Your task to perform on an android device: Go to internet settings Image 0: 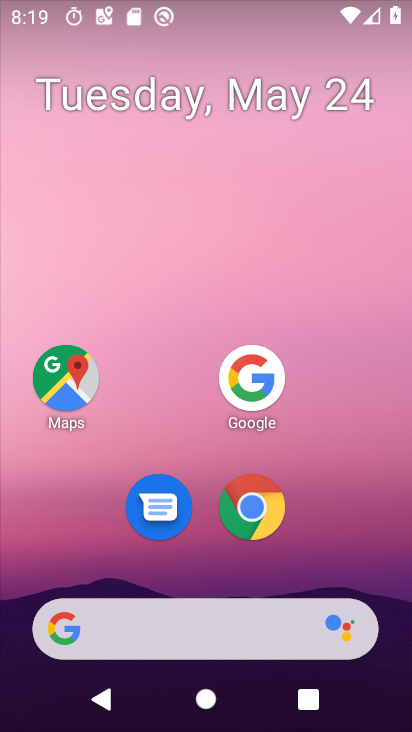
Step 0: drag from (146, 646) to (329, 110)
Your task to perform on an android device: Go to internet settings Image 1: 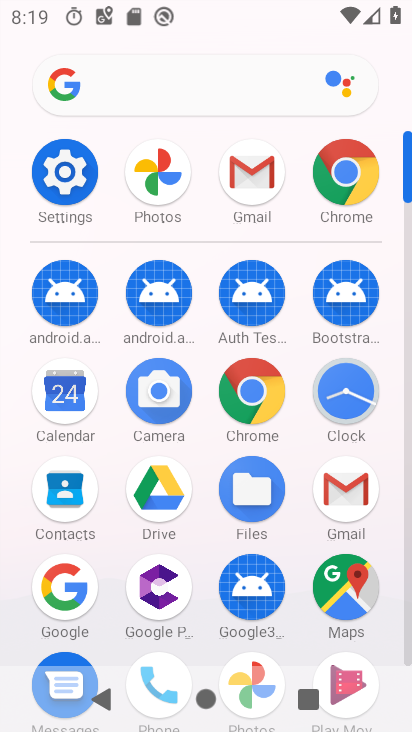
Step 1: click (72, 174)
Your task to perform on an android device: Go to internet settings Image 2: 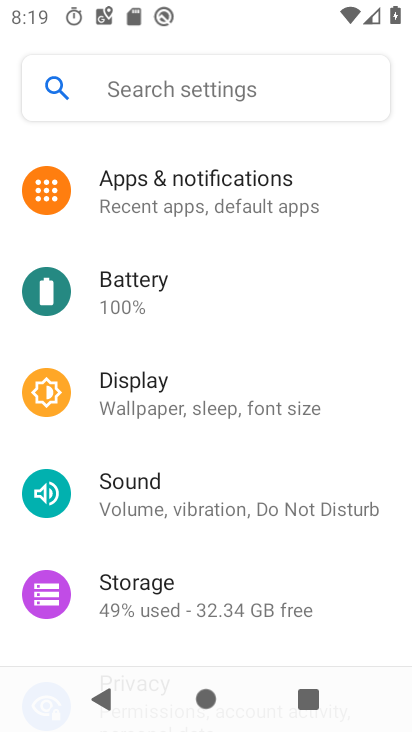
Step 2: drag from (343, 160) to (187, 541)
Your task to perform on an android device: Go to internet settings Image 3: 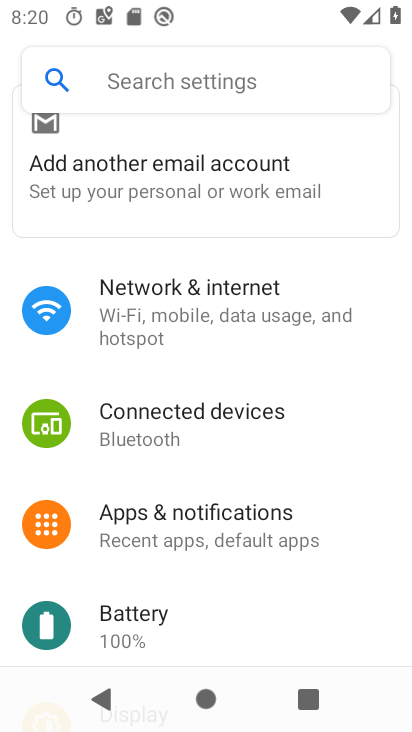
Step 3: click (206, 298)
Your task to perform on an android device: Go to internet settings Image 4: 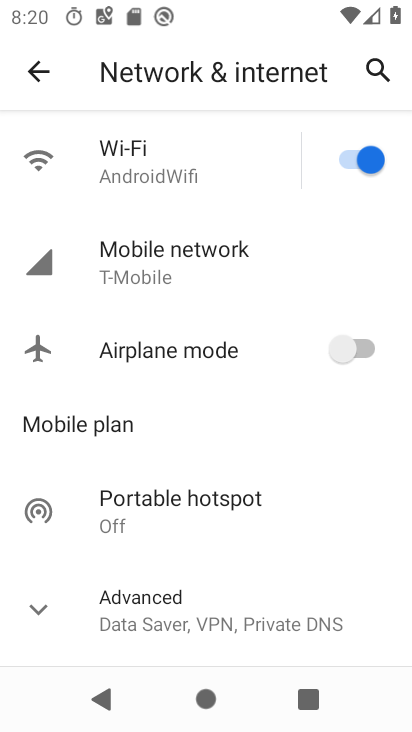
Step 4: task complete